Your task to perform on an android device: Open Google Image 0: 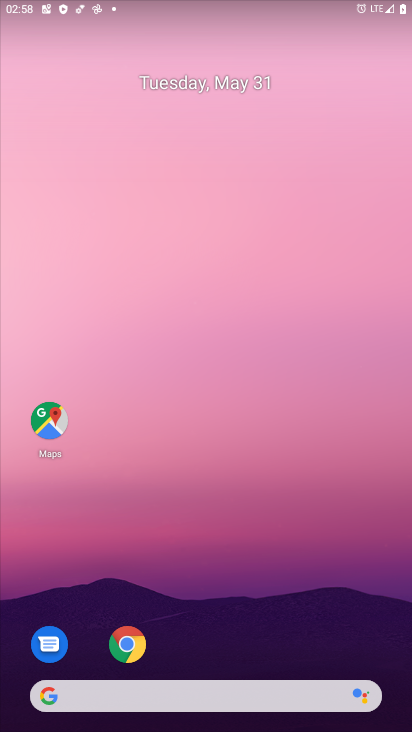
Step 0: drag from (309, 569) to (284, 144)
Your task to perform on an android device: Open Google Image 1: 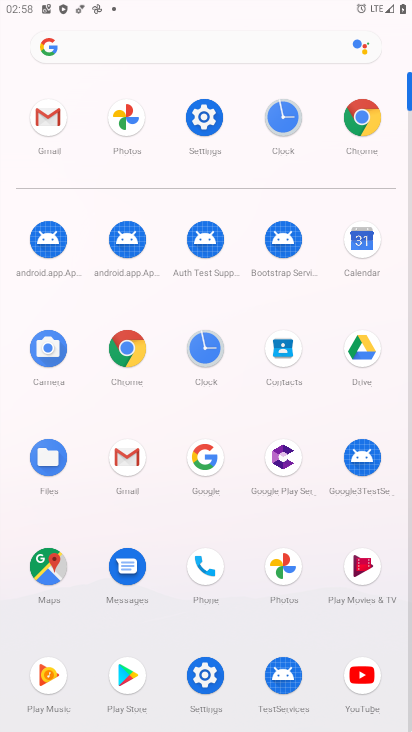
Step 1: click (200, 459)
Your task to perform on an android device: Open Google Image 2: 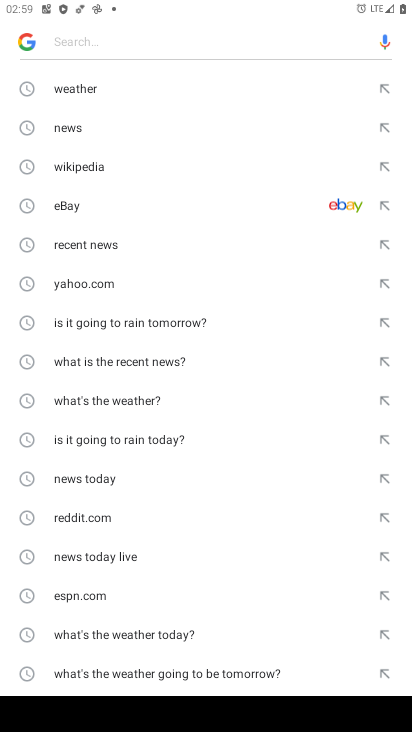
Step 2: task complete